Your task to perform on an android device: turn on javascript in the chrome app Image 0: 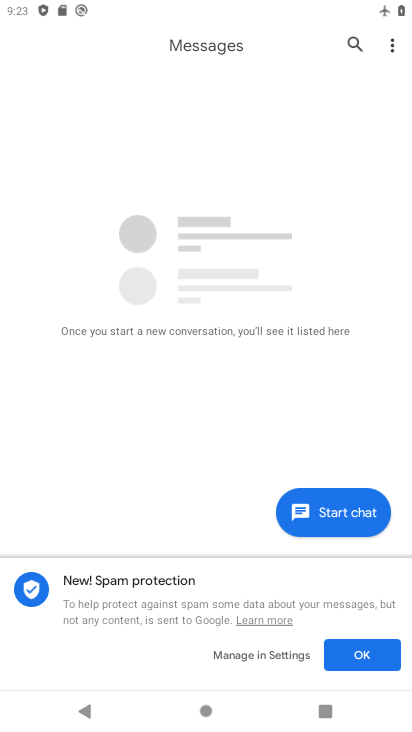
Step 0: press home button
Your task to perform on an android device: turn on javascript in the chrome app Image 1: 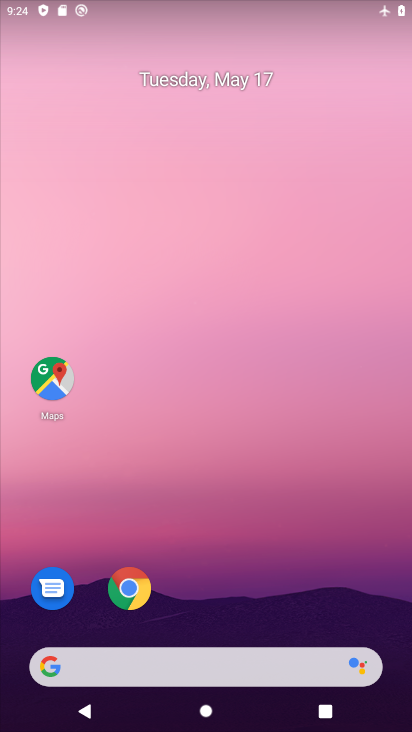
Step 1: click (130, 587)
Your task to perform on an android device: turn on javascript in the chrome app Image 2: 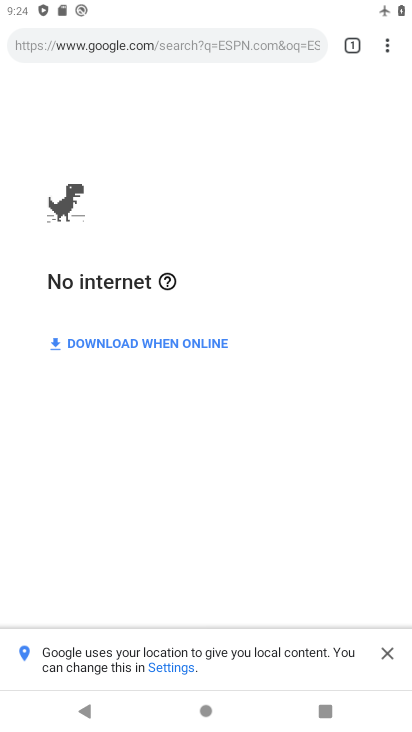
Step 2: click (390, 49)
Your task to perform on an android device: turn on javascript in the chrome app Image 3: 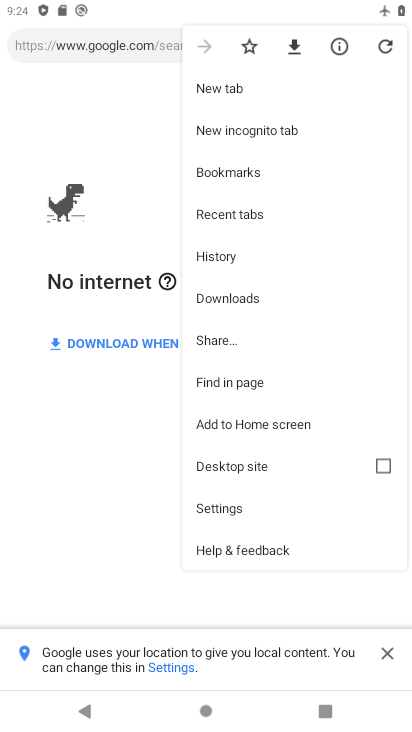
Step 3: click (227, 503)
Your task to perform on an android device: turn on javascript in the chrome app Image 4: 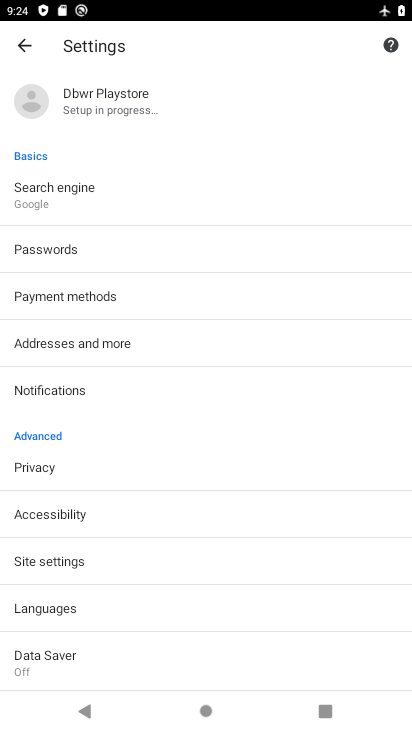
Step 4: click (73, 562)
Your task to perform on an android device: turn on javascript in the chrome app Image 5: 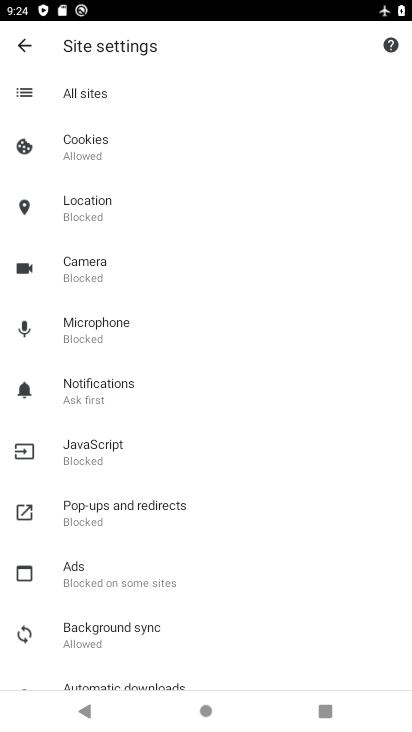
Step 5: click (102, 453)
Your task to perform on an android device: turn on javascript in the chrome app Image 6: 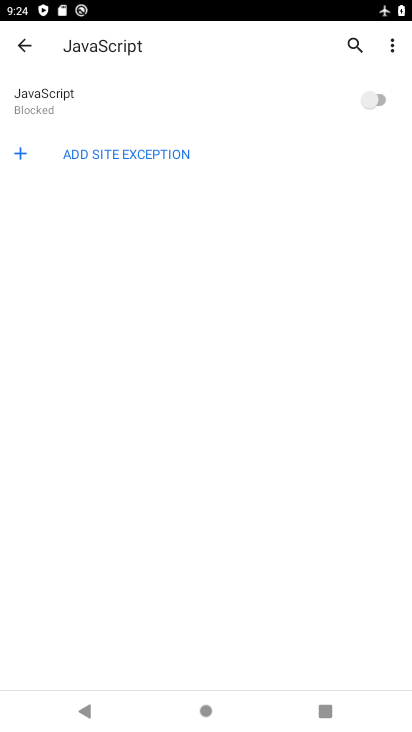
Step 6: click (382, 96)
Your task to perform on an android device: turn on javascript in the chrome app Image 7: 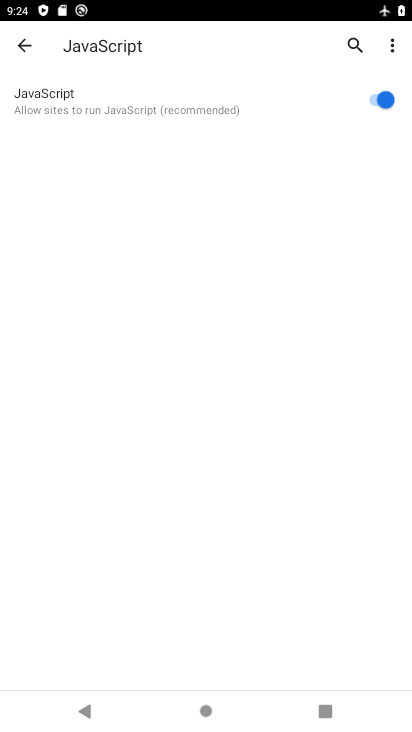
Step 7: task complete